Your task to perform on an android device: Search for vegetarian restaurants on Maps Image 0: 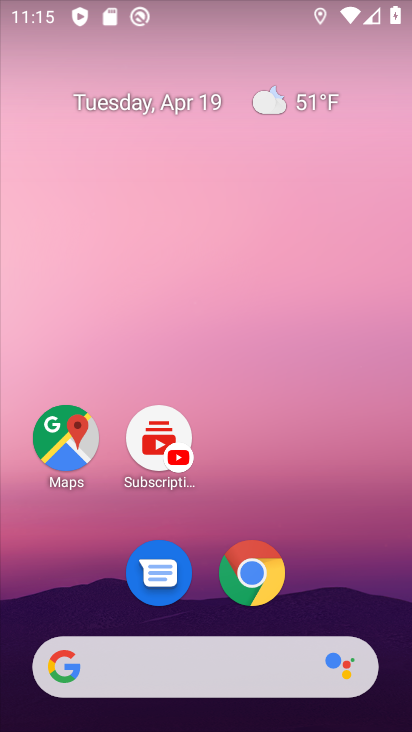
Step 0: click (81, 441)
Your task to perform on an android device: Search for vegetarian restaurants on Maps Image 1: 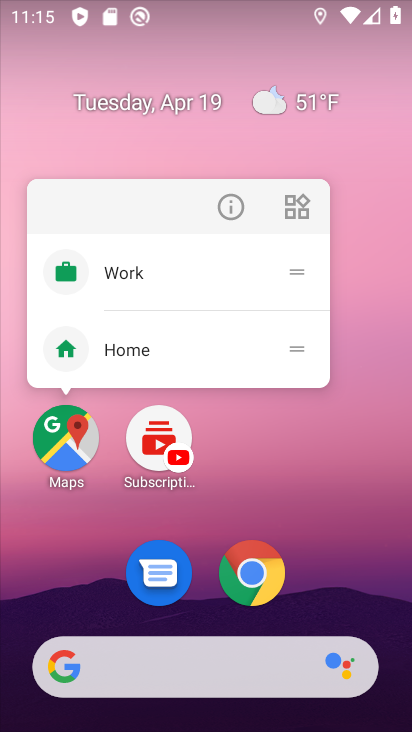
Step 1: click (66, 434)
Your task to perform on an android device: Search for vegetarian restaurants on Maps Image 2: 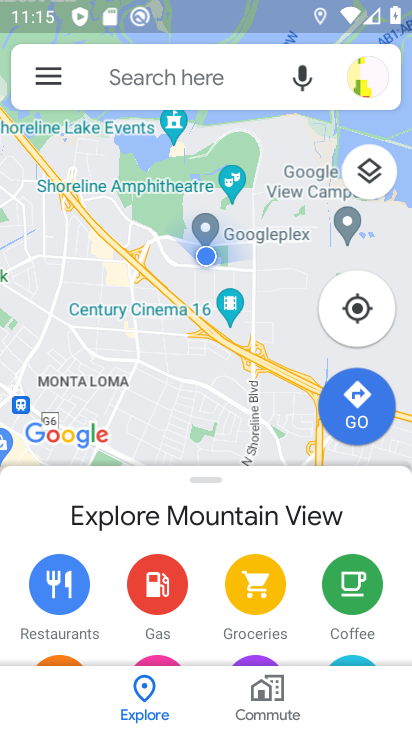
Step 2: click (125, 77)
Your task to perform on an android device: Search for vegetarian restaurants on Maps Image 3: 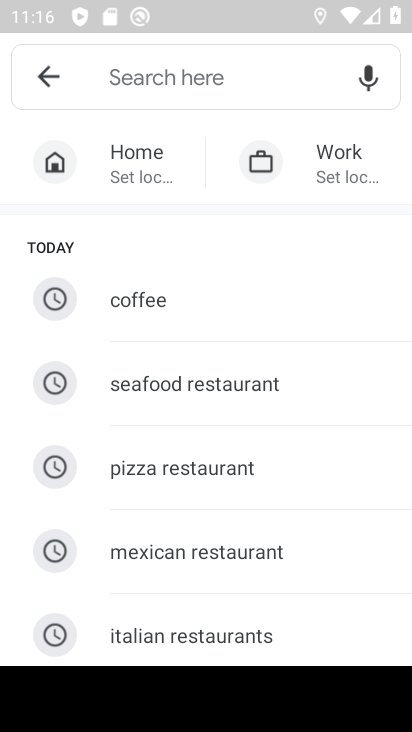
Step 3: drag from (202, 619) to (204, 365)
Your task to perform on an android device: Search for vegetarian restaurants on Maps Image 4: 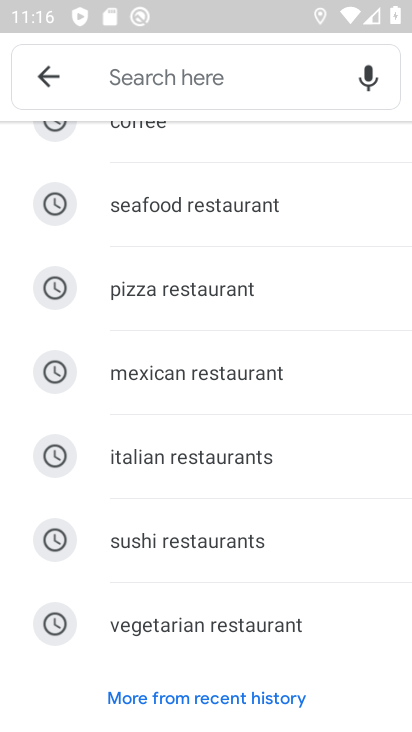
Step 4: click (193, 626)
Your task to perform on an android device: Search for vegetarian restaurants on Maps Image 5: 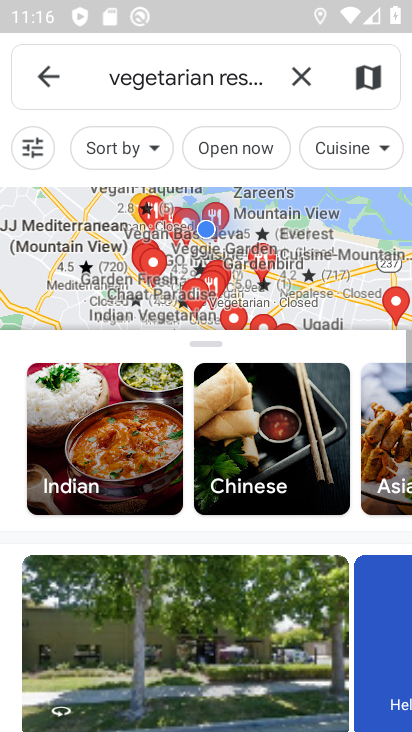
Step 5: task complete